Your task to perform on an android device: Open calendar and show me the fourth week of next month Image 0: 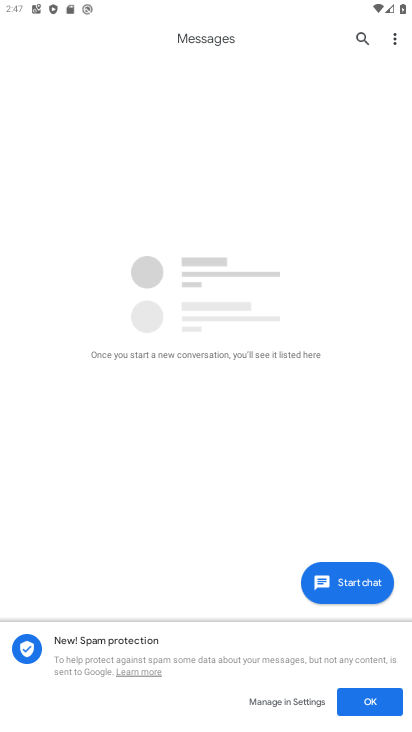
Step 0: press home button
Your task to perform on an android device: Open calendar and show me the fourth week of next month Image 1: 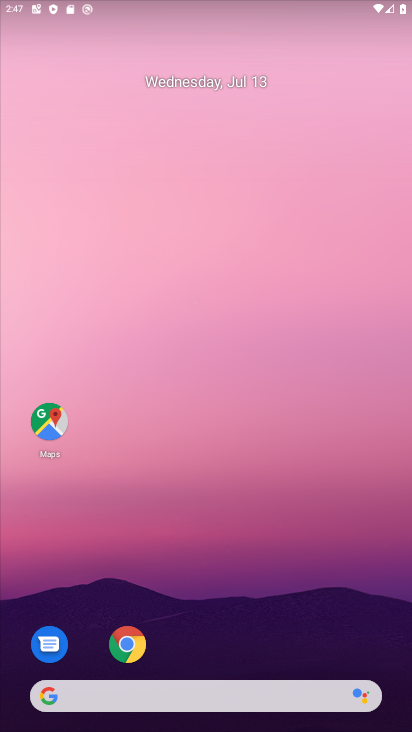
Step 1: drag from (248, 564) to (208, 45)
Your task to perform on an android device: Open calendar and show me the fourth week of next month Image 2: 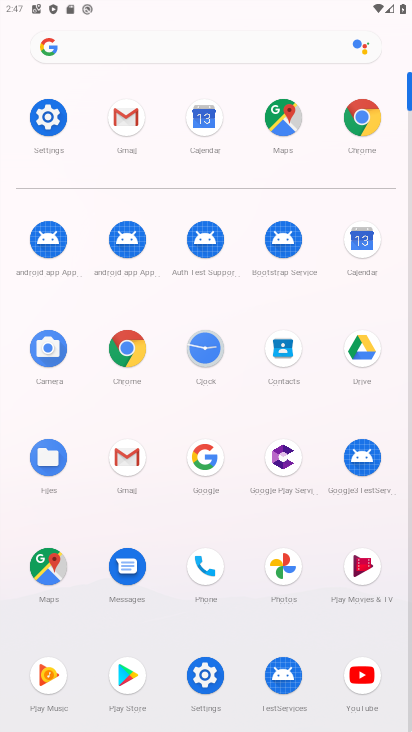
Step 2: click (203, 130)
Your task to perform on an android device: Open calendar and show me the fourth week of next month Image 3: 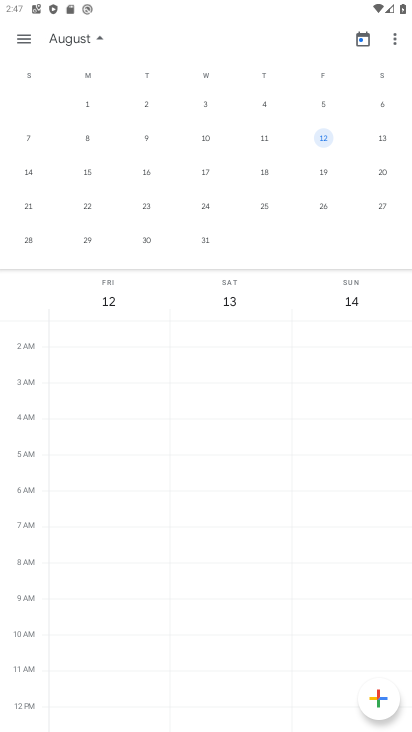
Step 3: click (263, 206)
Your task to perform on an android device: Open calendar and show me the fourth week of next month Image 4: 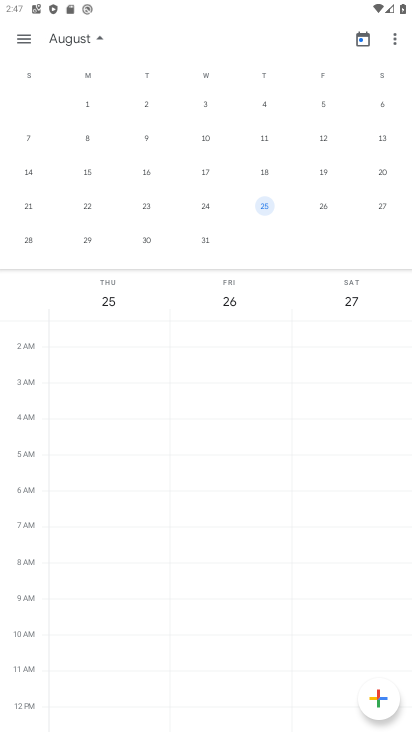
Step 4: drag from (217, 497) to (274, 117)
Your task to perform on an android device: Open calendar and show me the fourth week of next month Image 5: 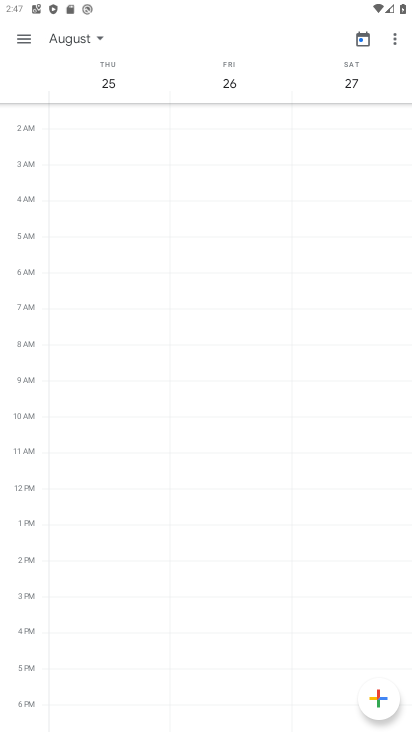
Step 5: click (28, 38)
Your task to perform on an android device: Open calendar and show me the fourth week of next month Image 6: 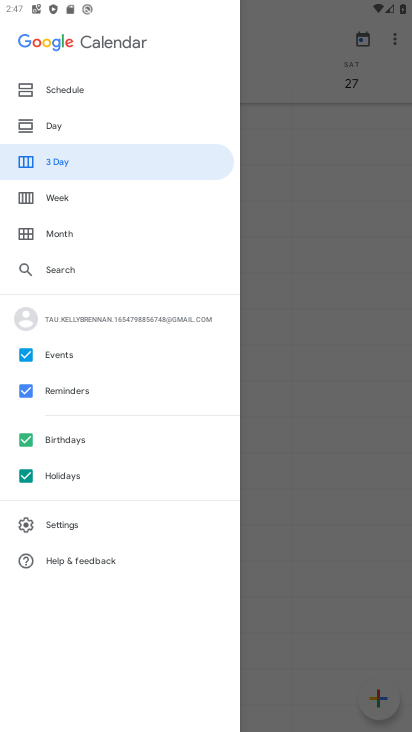
Step 6: click (66, 201)
Your task to perform on an android device: Open calendar and show me the fourth week of next month Image 7: 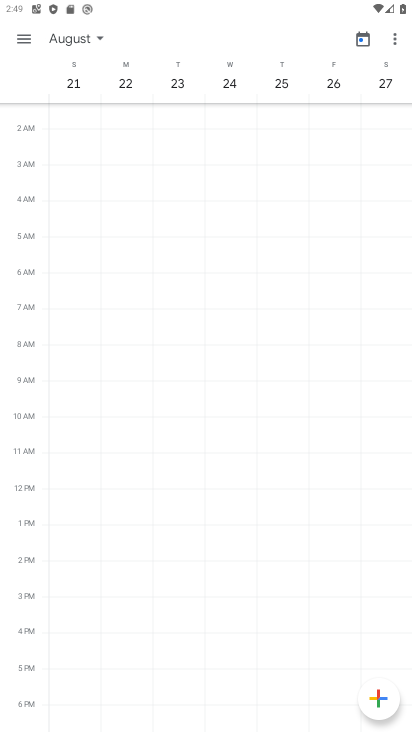
Step 7: task complete